Your task to perform on an android device: turn on improve location accuracy Image 0: 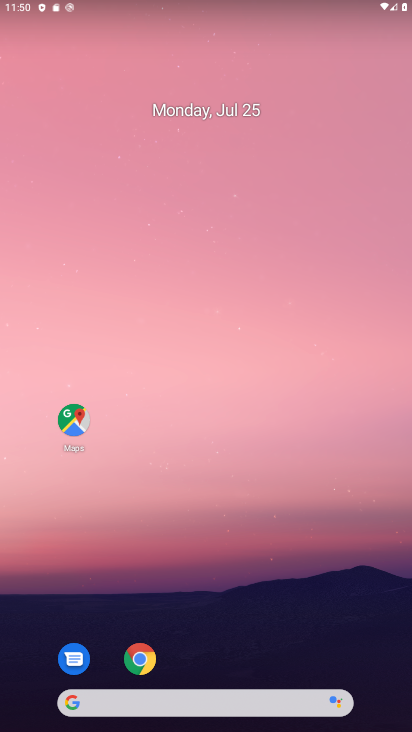
Step 0: drag from (206, 390) to (258, 82)
Your task to perform on an android device: turn on improve location accuracy Image 1: 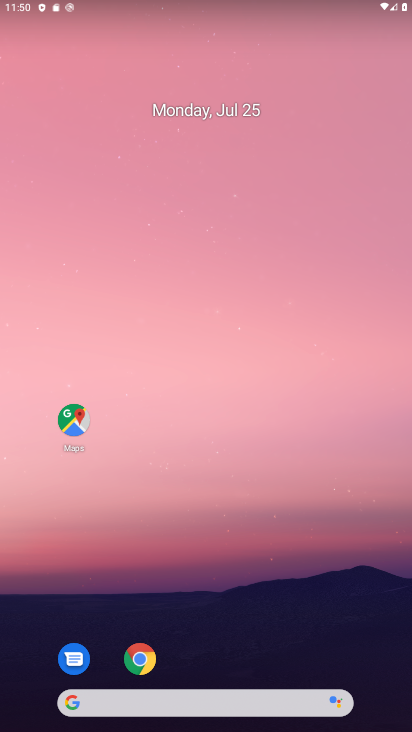
Step 1: drag from (167, 639) to (166, 56)
Your task to perform on an android device: turn on improve location accuracy Image 2: 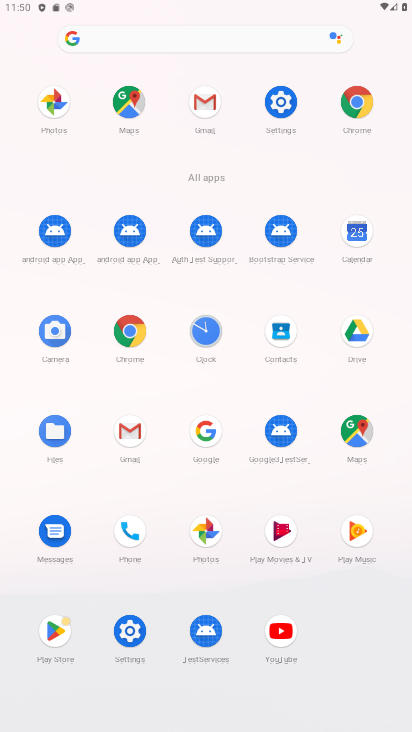
Step 2: click (269, 102)
Your task to perform on an android device: turn on improve location accuracy Image 3: 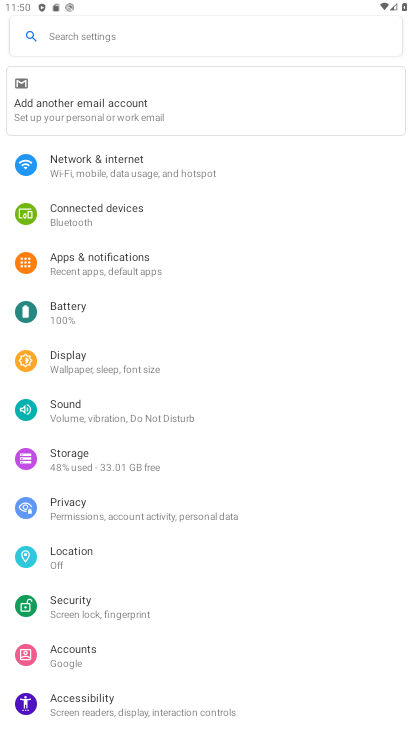
Step 3: click (83, 548)
Your task to perform on an android device: turn on improve location accuracy Image 4: 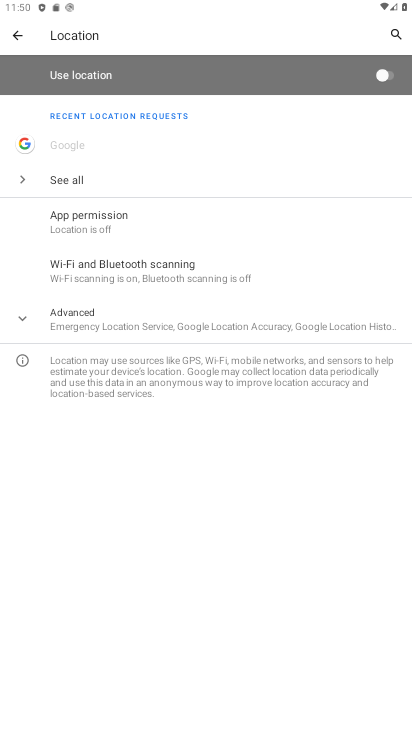
Step 4: click (68, 310)
Your task to perform on an android device: turn on improve location accuracy Image 5: 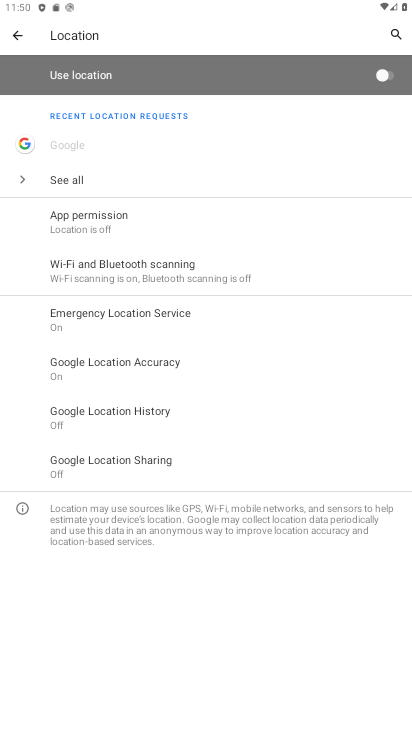
Step 5: click (141, 369)
Your task to perform on an android device: turn on improve location accuracy Image 6: 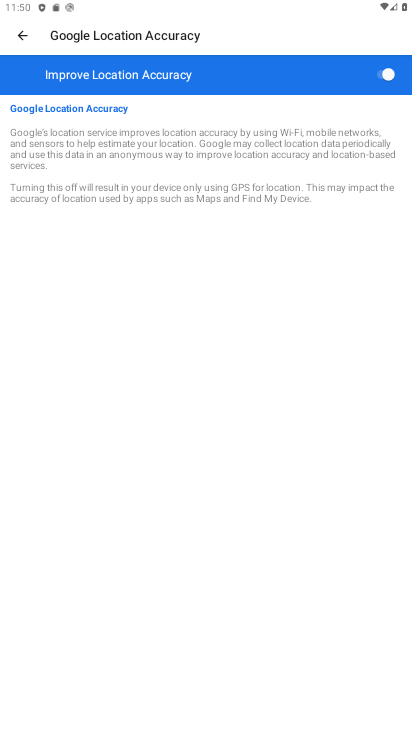
Step 6: task complete